Your task to perform on an android device: Open accessibility settings Image 0: 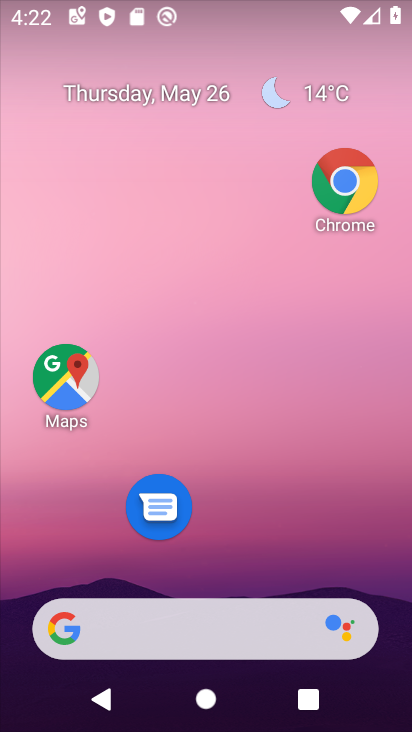
Step 0: drag from (282, 551) to (271, 98)
Your task to perform on an android device: Open accessibility settings Image 1: 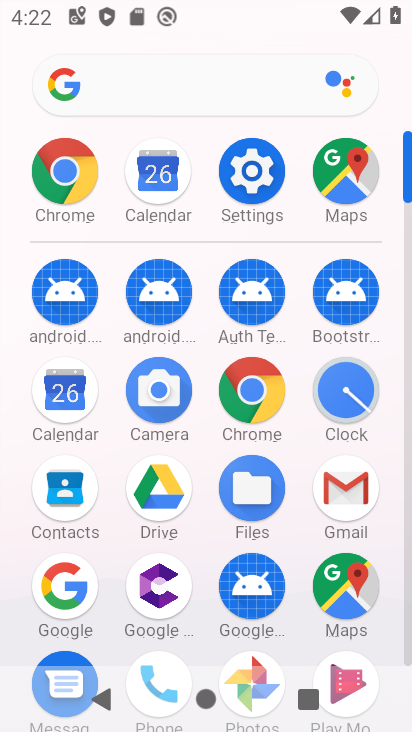
Step 1: click (244, 172)
Your task to perform on an android device: Open accessibility settings Image 2: 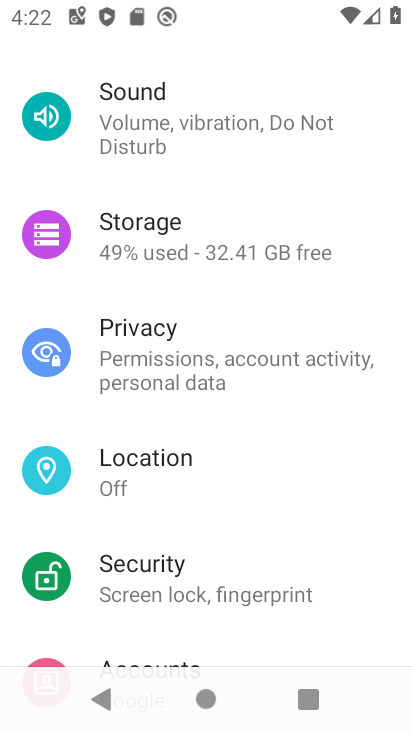
Step 2: drag from (338, 601) to (364, 185)
Your task to perform on an android device: Open accessibility settings Image 3: 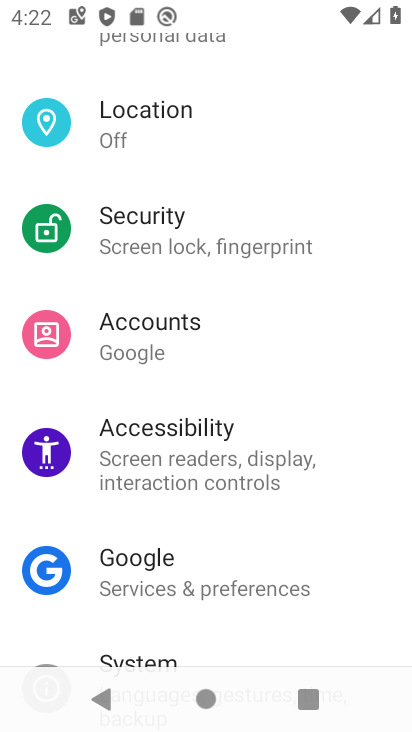
Step 3: click (152, 458)
Your task to perform on an android device: Open accessibility settings Image 4: 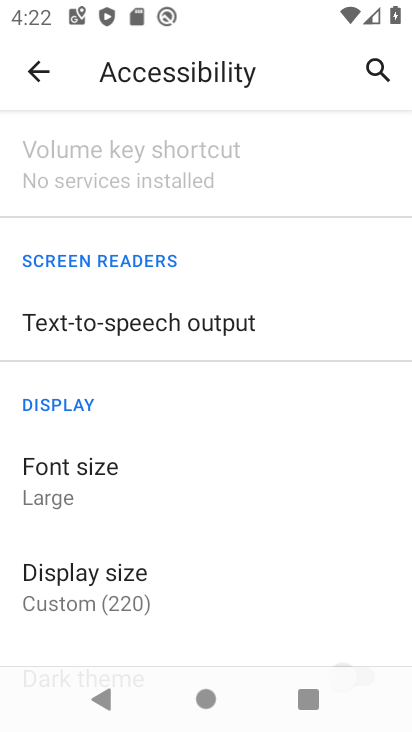
Step 4: task complete